Your task to perform on an android device: Open the web browser Image 0: 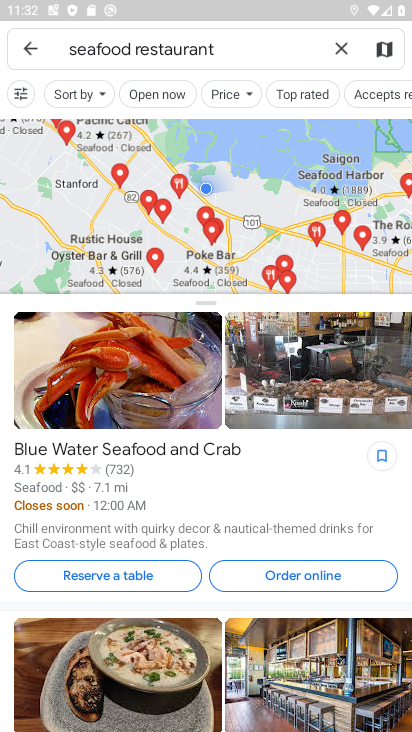
Step 0: press home button
Your task to perform on an android device: Open the web browser Image 1: 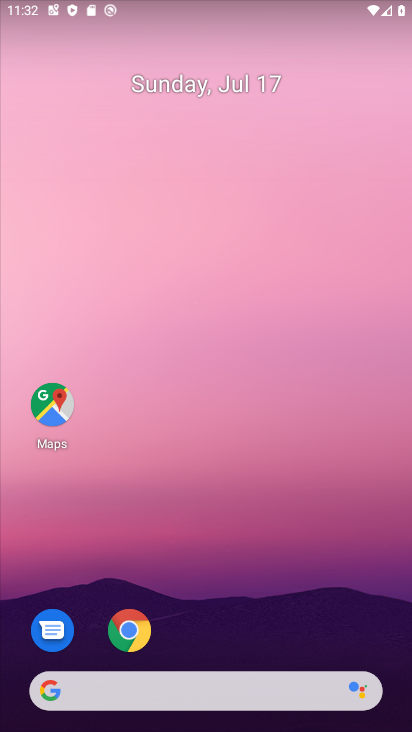
Step 1: click (128, 630)
Your task to perform on an android device: Open the web browser Image 2: 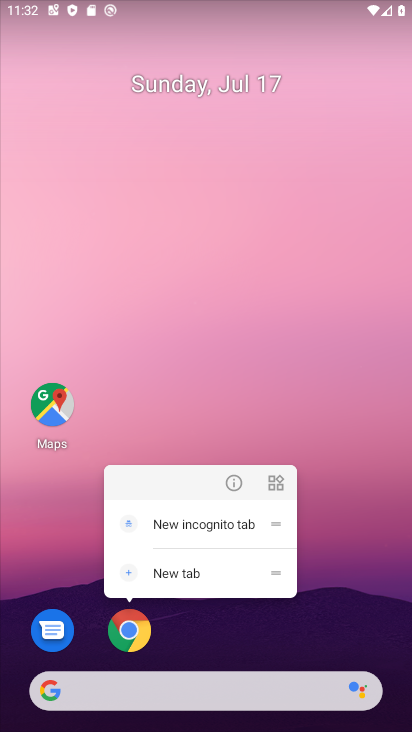
Step 2: click (137, 638)
Your task to perform on an android device: Open the web browser Image 3: 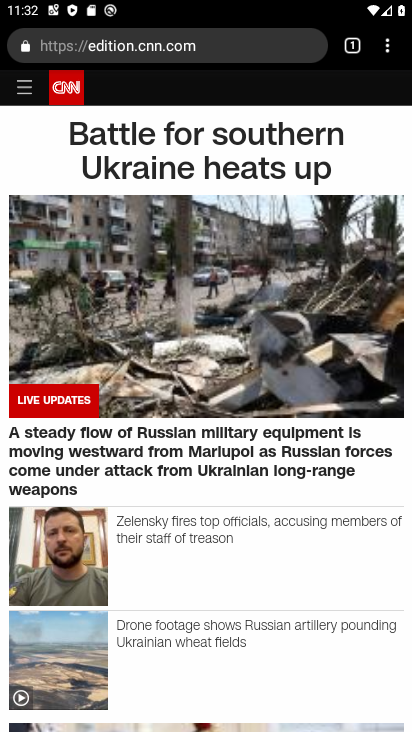
Step 3: task complete